Your task to perform on an android device: snooze an email in the gmail app Image 0: 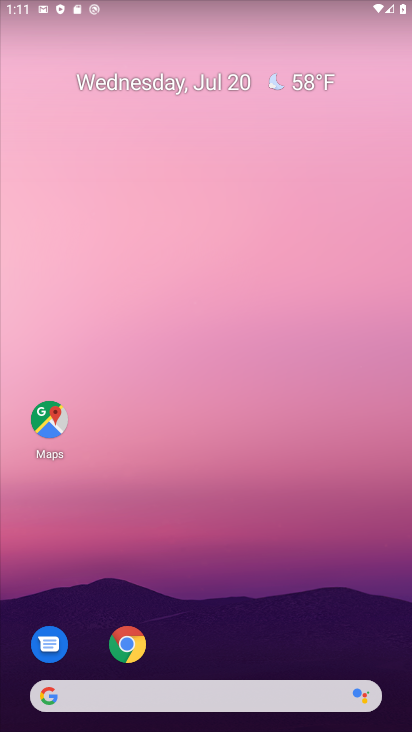
Step 0: drag from (200, 619) to (231, 70)
Your task to perform on an android device: snooze an email in the gmail app Image 1: 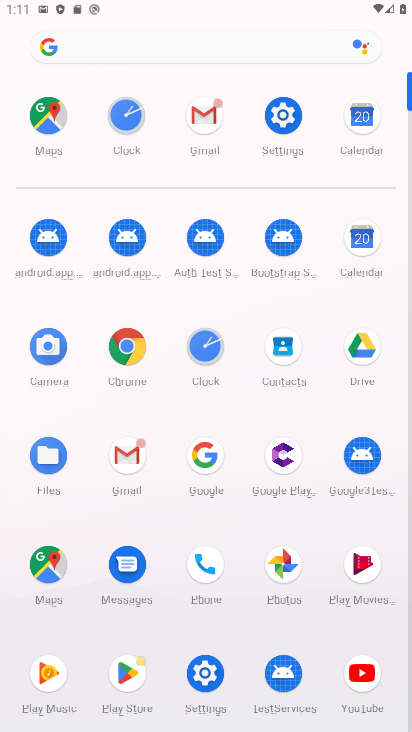
Step 1: click (205, 116)
Your task to perform on an android device: snooze an email in the gmail app Image 2: 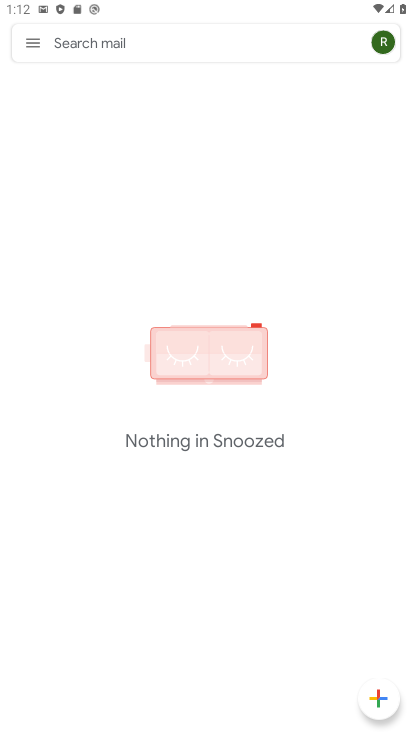
Step 2: click (39, 42)
Your task to perform on an android device: snooze an email in the gmail app Image 3: 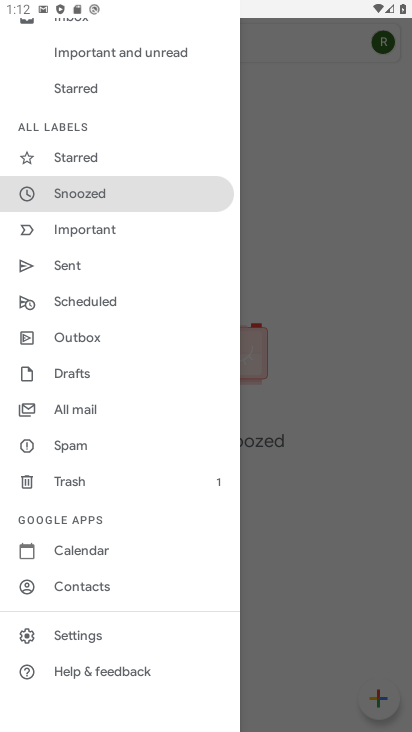
Step 3: click (61, 407)
Your task to perform on an android device: snooze an email in the gmail app Image 4: 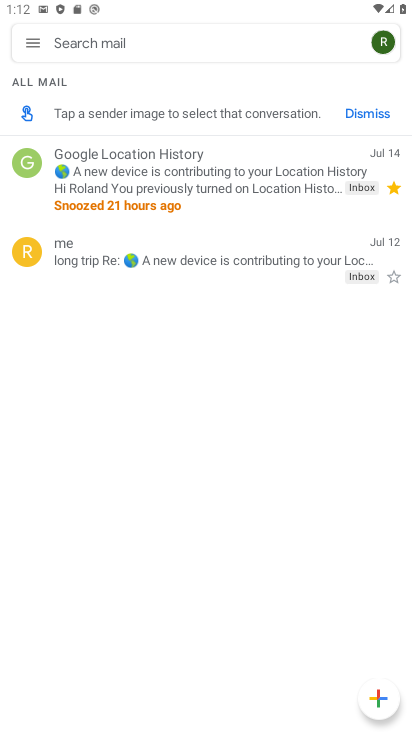
Step 4: click (196, 264)
Your task to perform on an android device: snooze an email in the gmail app Image 5: 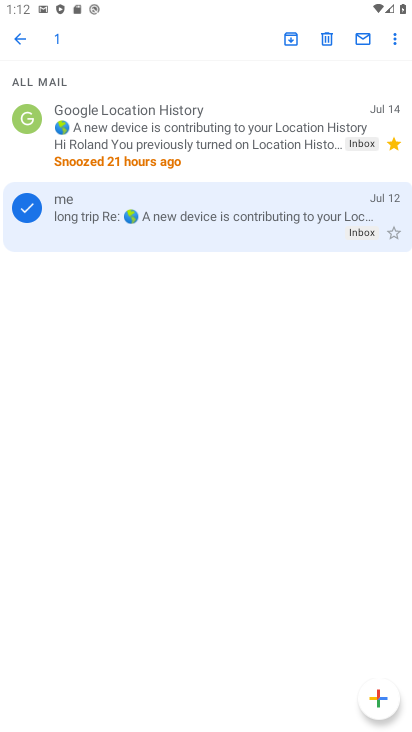
Step 5: click (387, 39)
Your task to perform on an android device: snooze an email in the gmail app Image 6: 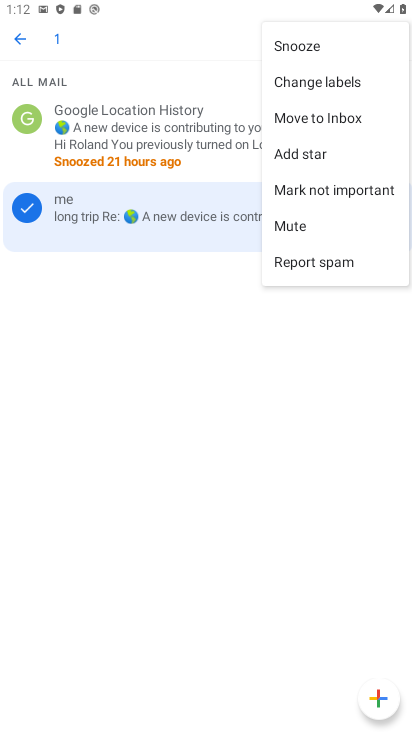
Step 6: click (302, 47)
Your task to perform on an android device: snooze an email in the gmail app Image 7: 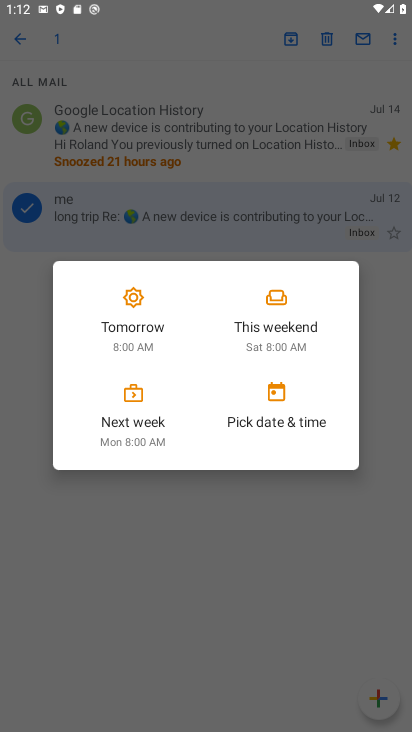
Step 7: click (141, 434)
Your task to perform on an android device: snooze an email in the gmail app Image 8: 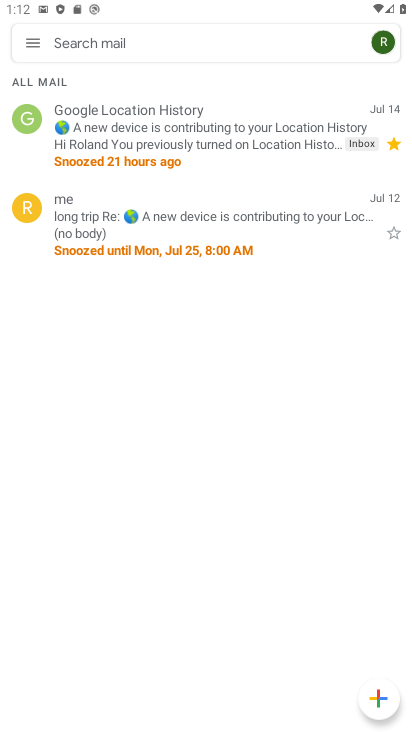
Step 8: task complete